Your task to perform on an android device: Go to Maps Image 0: 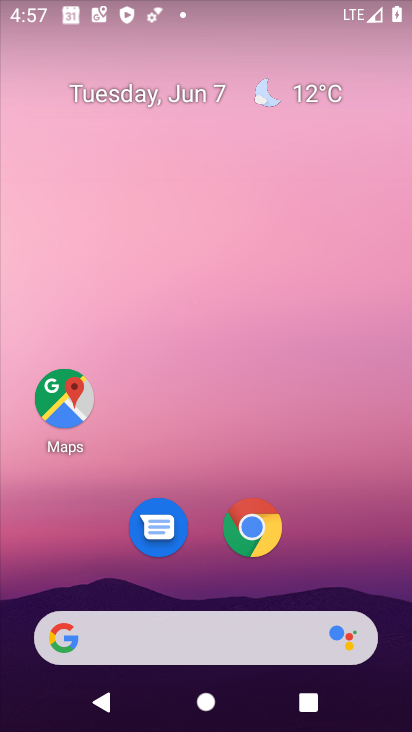
Step 0: click (64, 400)
Your task to perform on an android device: Go to Maps Image 1: 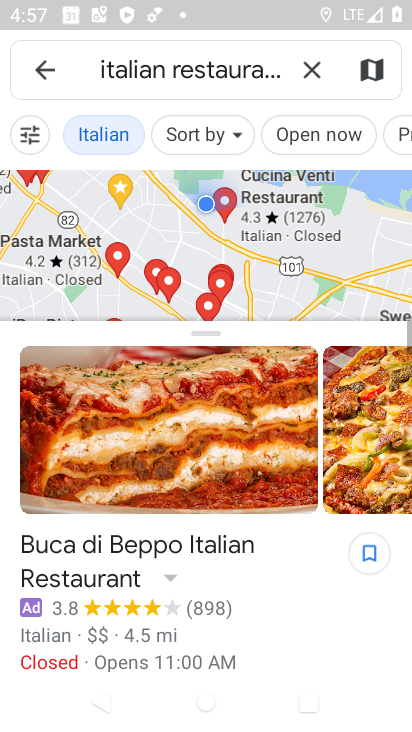
Step 1: click (315, 66)
Your task to perform on an android device: Go to Maps Image 2: 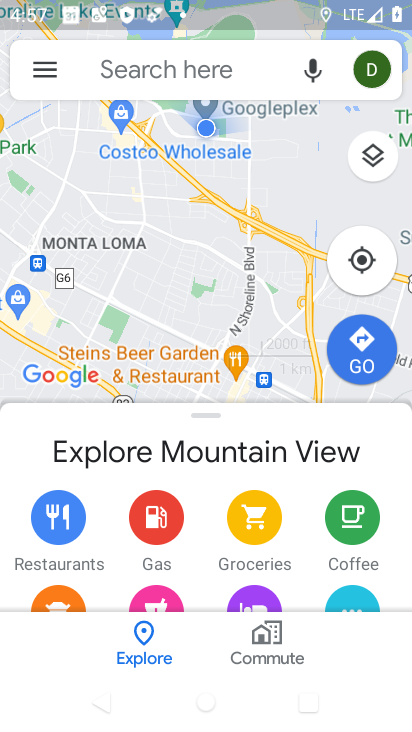
Step 2: task complete